Your task to perform on an android device: change notification settings in the gmail app Image 0: 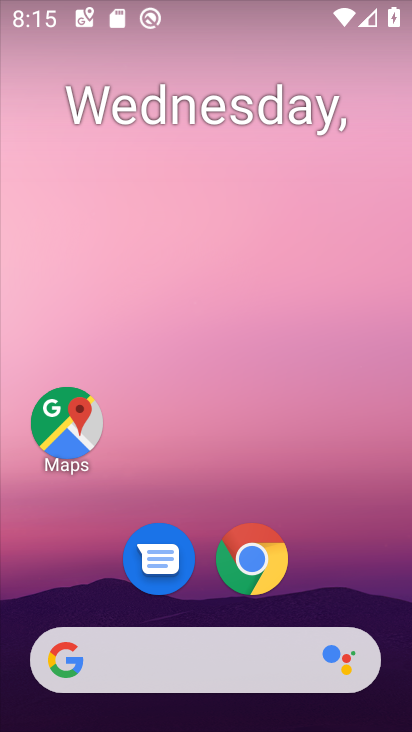
Step 0: drag from (357, 573) to (368, 207)
Your task to perform on an android device: change notification settings in the gmail app Image 1: 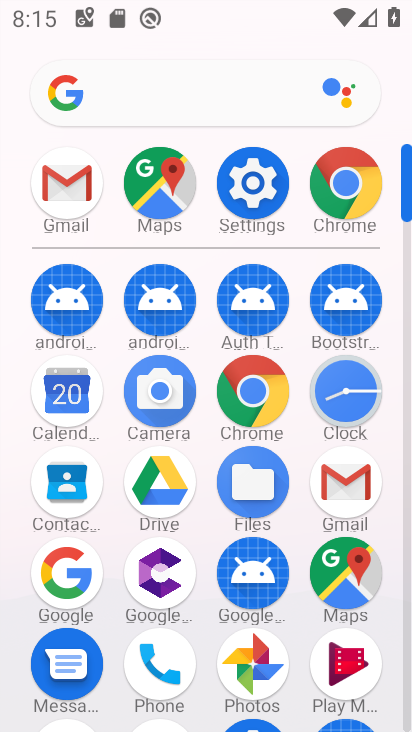
Step 1: click (343, 486)
Your task to perform on an android device: change notification settings in the gmail app Image 2: 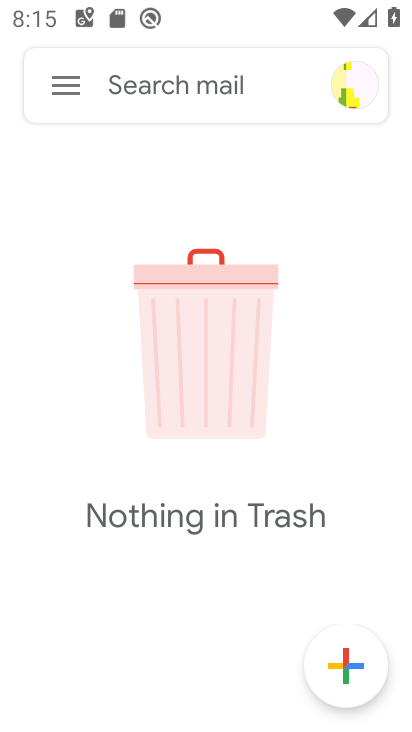
Step 2: click (67, 94)
Your task to perform on an android device: change notification settings in the gmail app Image 3: 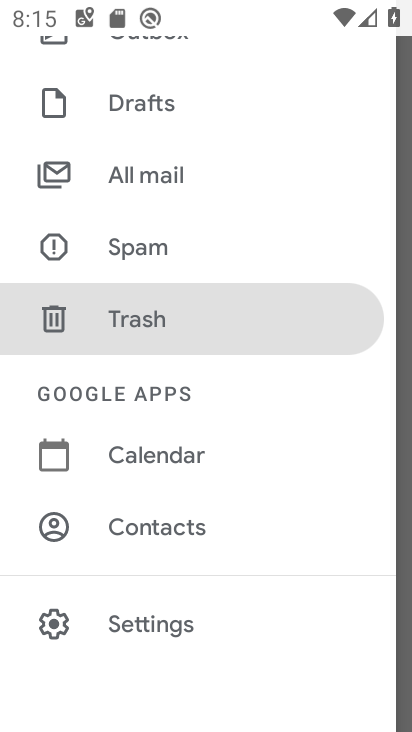
Step 3: click (167, 635)
Your task to perform on an android device: change notification settings in the gmail app Image 4: 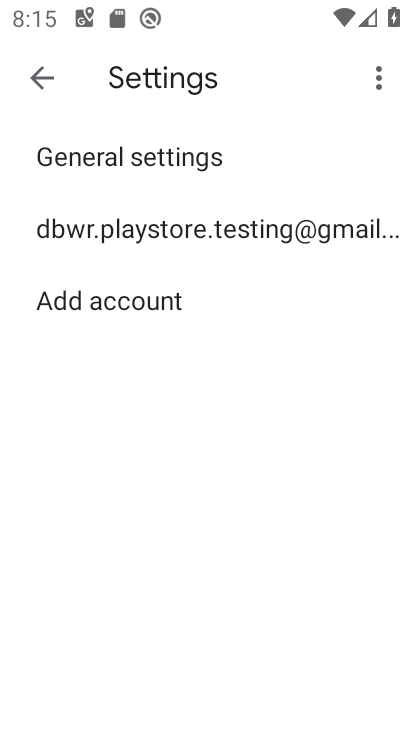
Step 4: click (247, 219)
Your task to perform on an android device: change notification settings in the gmail app Image 5: 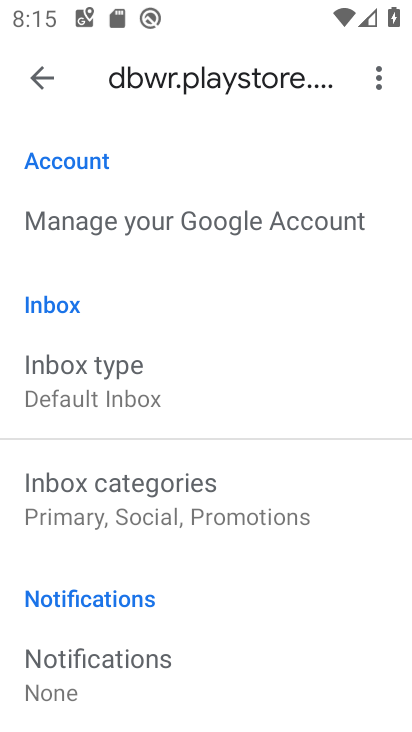
Step 5: click (140, 662)
Your task to perform on an android device: change notification settings in the gmail app Image 6: 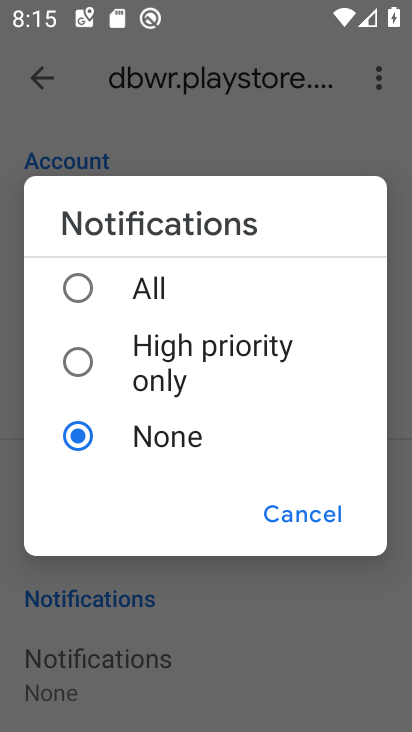
Step 6: click (78, 368)
Your task to perform on an android device: change notification settings in the gmail app Image 7: 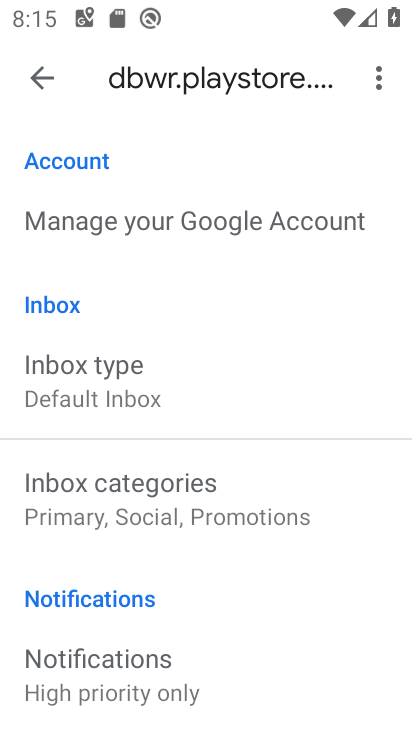
Step 7: click (76, 362)
Your task to perform on an android device: change notification settings in the gmail app Image 8: 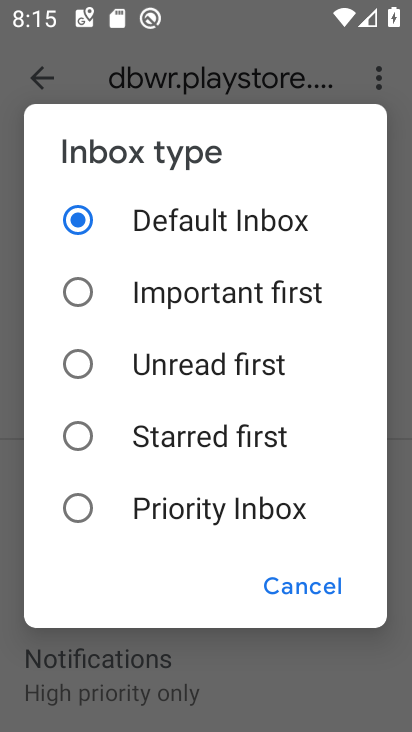
Step 8: click (280, 579)
Your task to perform on an android device: change notification settings in the gmail app Image 9: 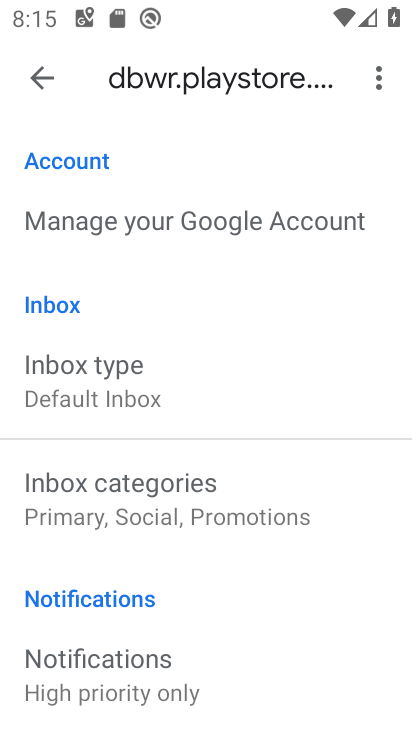
Step 9: task complete